Your task to perform on an android device: Open Chrome and go to settings Image 0: 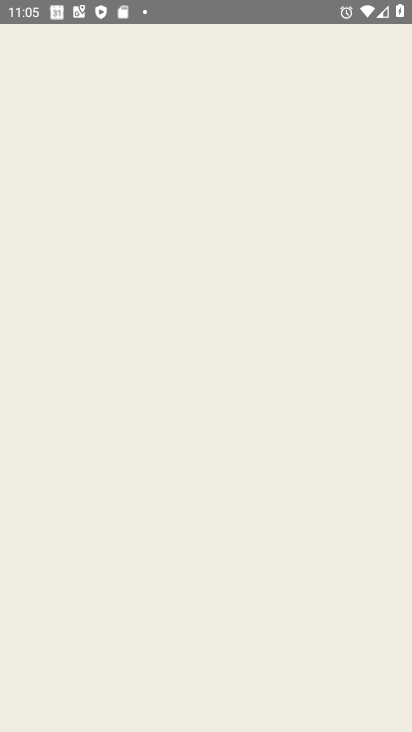
Step 0: drag from (206, 419) to (210, 238)
Your task to perform on an android device: Open Chrome and go to settings Image 1: 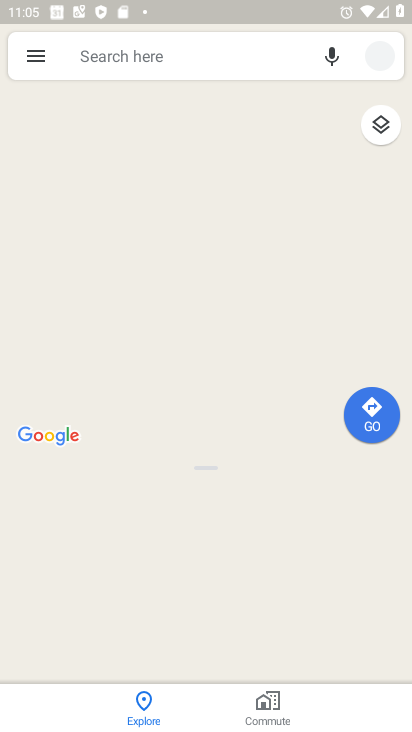
Step 1: press home button
Your task to perform on an android device: Open Chrome and go to settings Image 2: 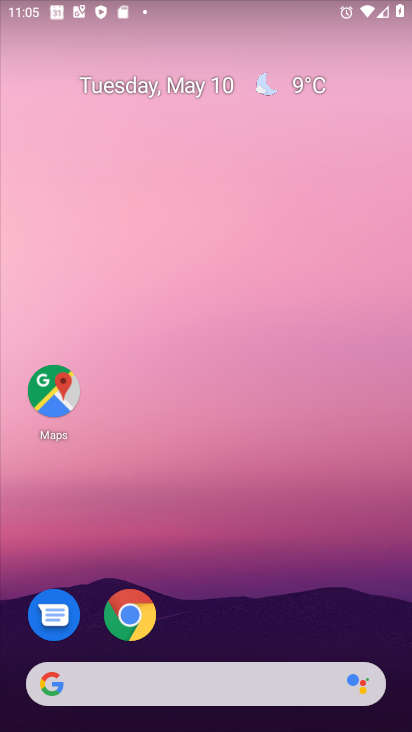
Step 2: drag from (220, 639) to (205, 133)
Your task to perform on an android device: Open Chrome and go to settings Image 3: 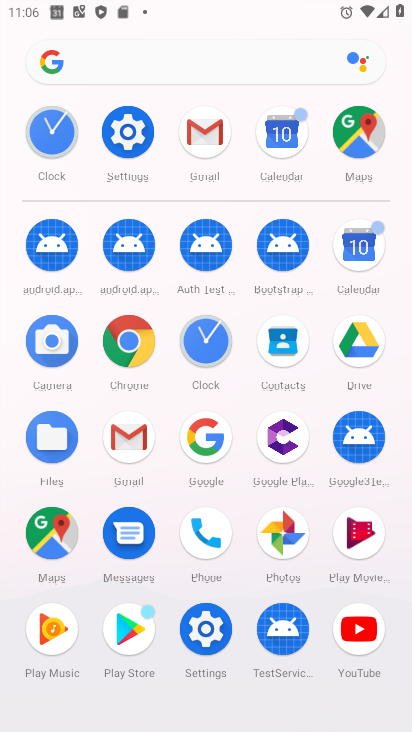
Step 3: click (124, 332)
Your task to perform on an android device: Open Chrome and go to settings Image 4: 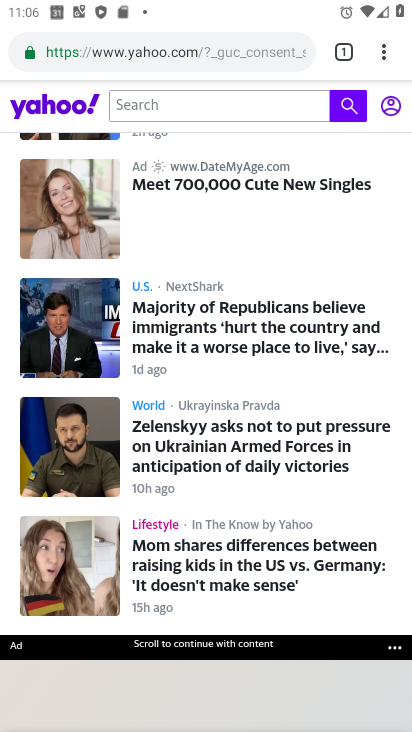
Step 4: click (384, 48)
Your task to perform on an android device: Open Chrome and go to settings Image 5: 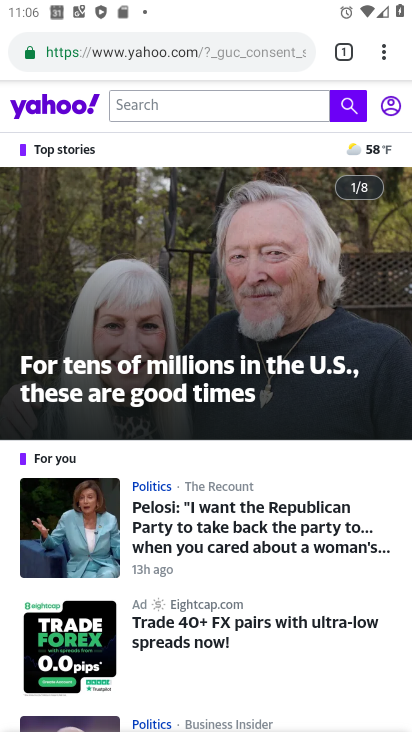
Step 5: drag from (238, 690) to (281, 263)
Your task to perform on an android device: Open Chrome and go to settings Image 6: 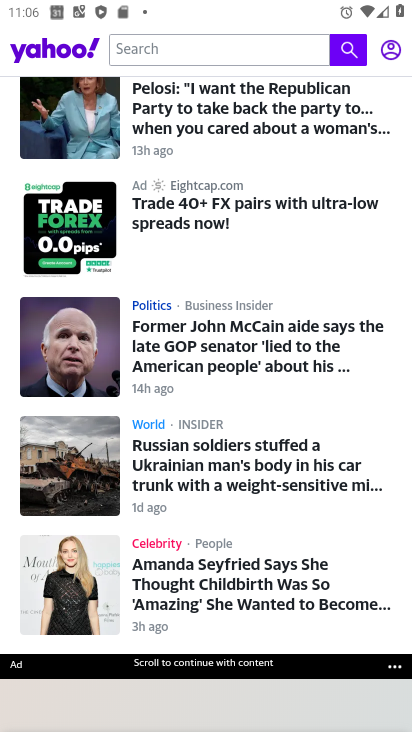
Step 6: drag from (290, 150) to (290, 605)
Your task to perform on an android device: Open Chrome and go to settings Image 7: 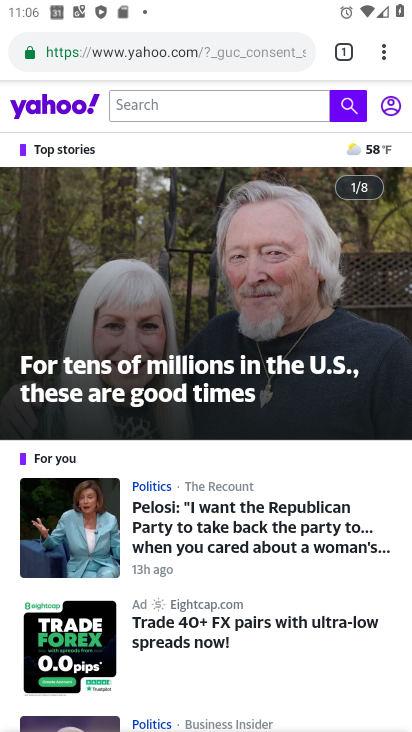
Step 7: click (383, 47)
Your task to perform on an android device: Open Chrome and go to settings Image 8: 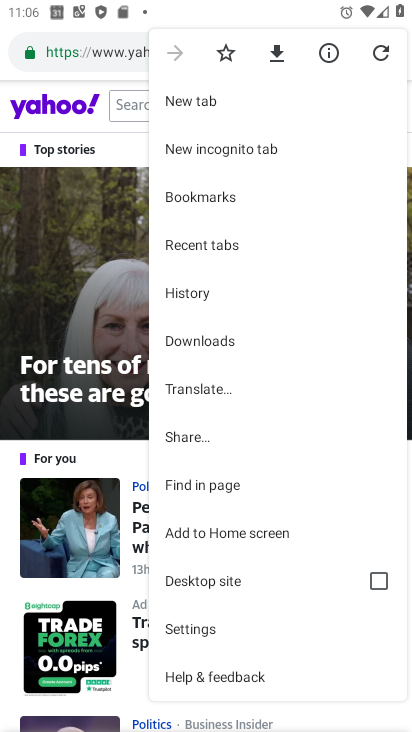
Step 8: click (218, 628)
Your task to perform on an android device: Open Chrome and go to settings Image 9: 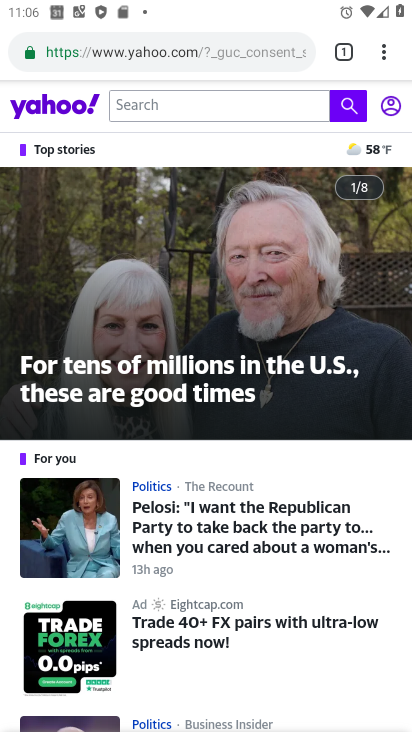
Step 9: click (219, 624)
Your task to perform on an android device: Open Chrome and go to settings Image 10: 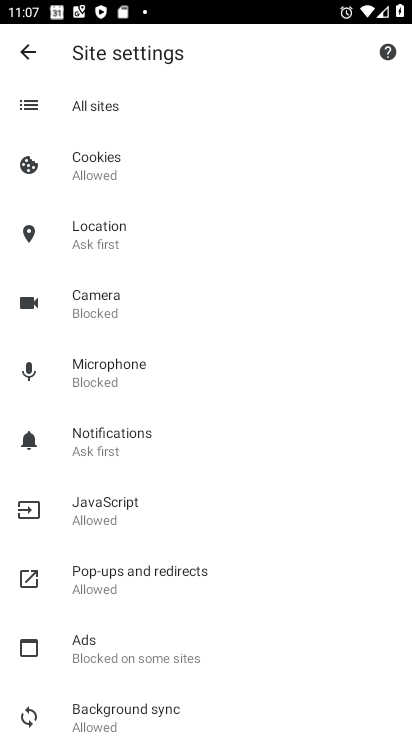
Step 10: click (28, 45)
Your task to perform on an android device: Open Chrome and go to settings Image 11: 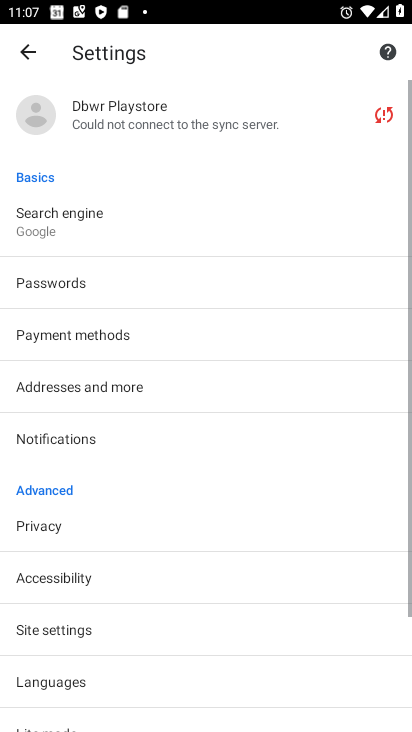
Step 11: drag from (224, 603) to (264, 171)
Your task to perform on an android device: Open Chrome and go to settings Image 12: 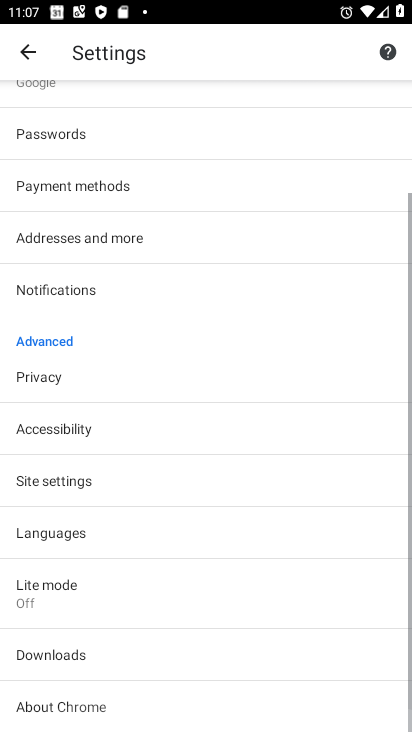
Step 12: click (267, 133)
Your task to perform on an android device: Open Chrome and go to settings Image 13: 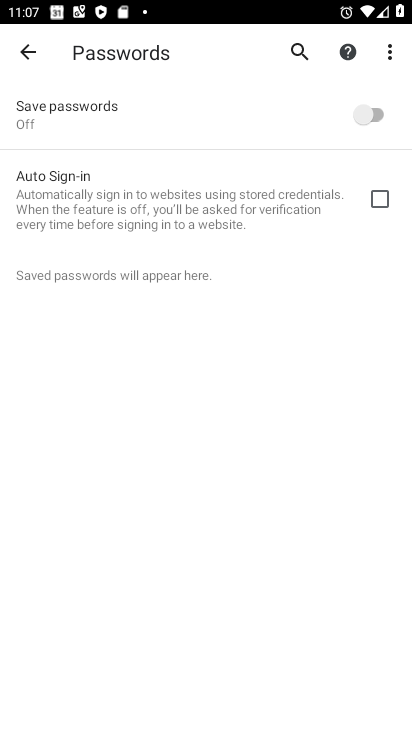
Step 13: task complete